Your task to perform on an android device: Search for seafood restaurants on Google Maps Image 0: 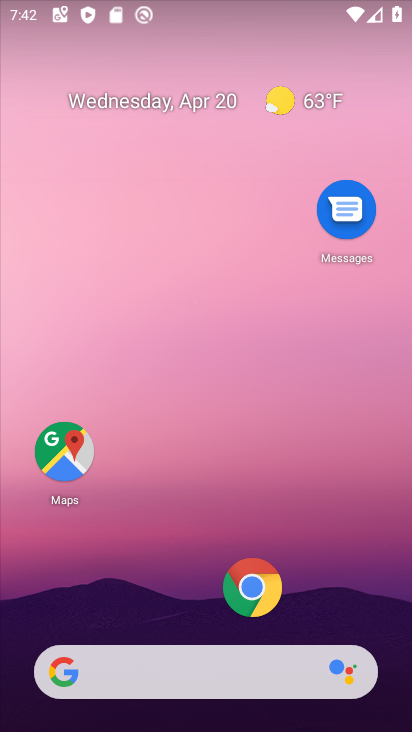
Step 0: drag from (138, 645) to (234, 160)
Your task to perform on an android device: Search for seafood restaurants on Google Maps Image 1: 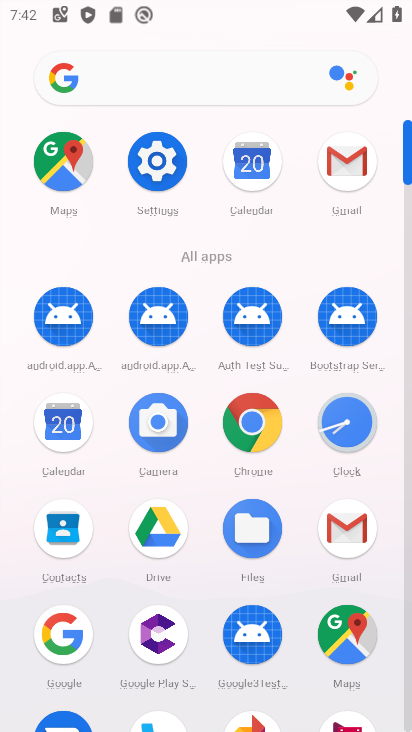
Step 1: click (65, 168)
Your task to perform on an android device: Search for seafood restaurants on Google Maps Image 2: 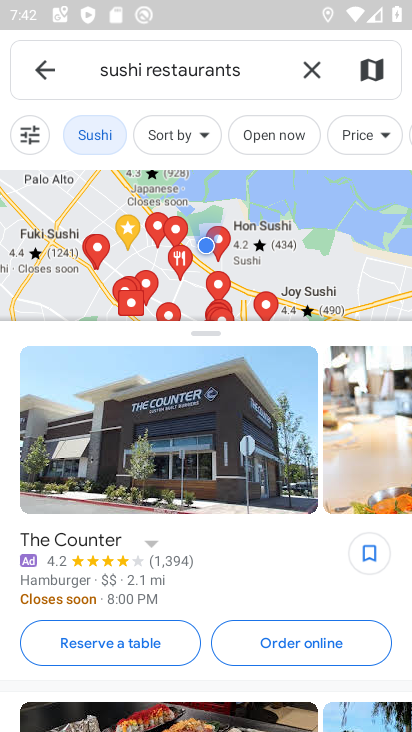
Step 2: click (312, 71)
Your task to perform on an android device: Search for seafood restaurants on Google Maps Image 3: 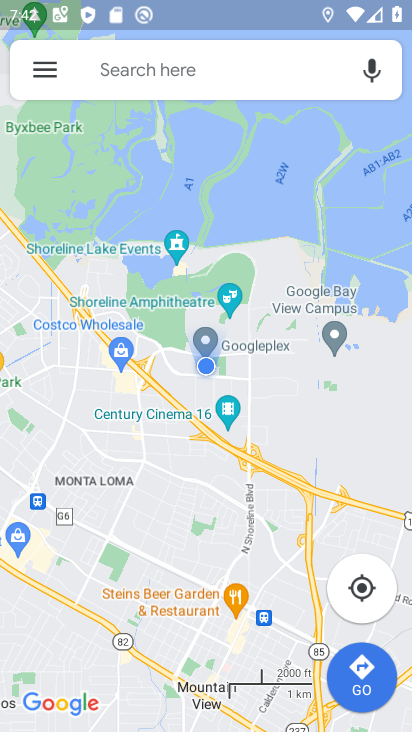
Step 3: click (133, 72)
Your task to perform on an android device: Search for seafood restaurants on Google Maps Image 4: 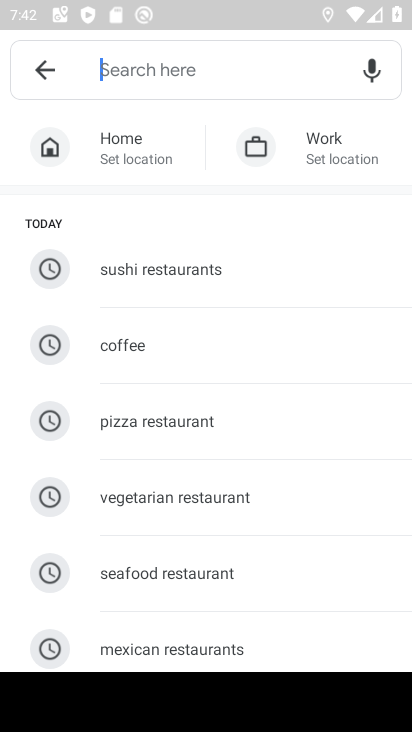
Step 4: click (143, 570)
Your task to perform on an android device: Search for seafood restaurants on Google Maps Image 5: 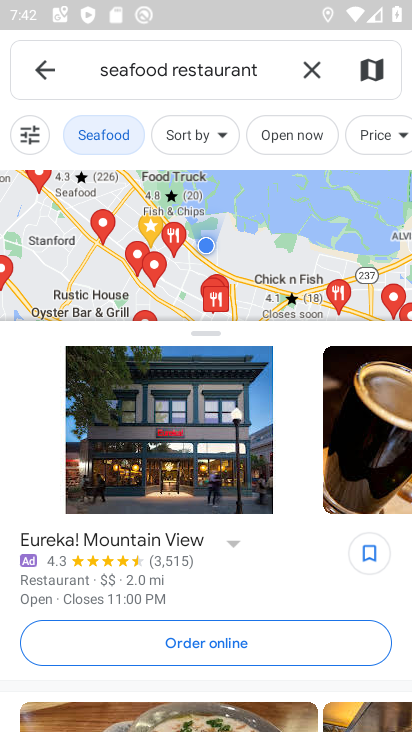
Step 5: task complete